Your task to perform on an android device: Go to settings Image 0: 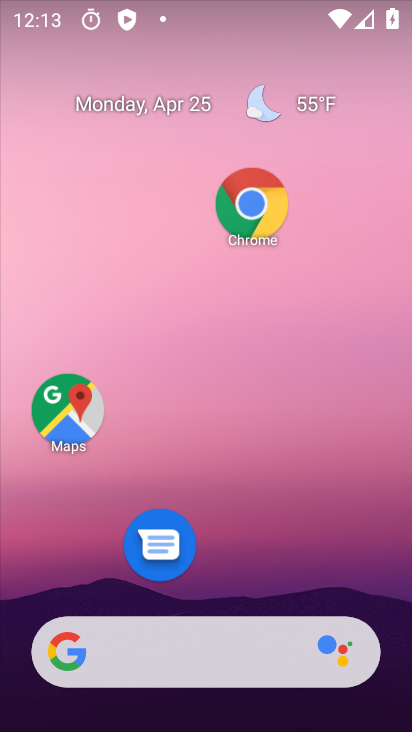
Step 0: drag from (335, 635) to (409, 184)
Your task to perform on an android device: Go to settings Image 1: 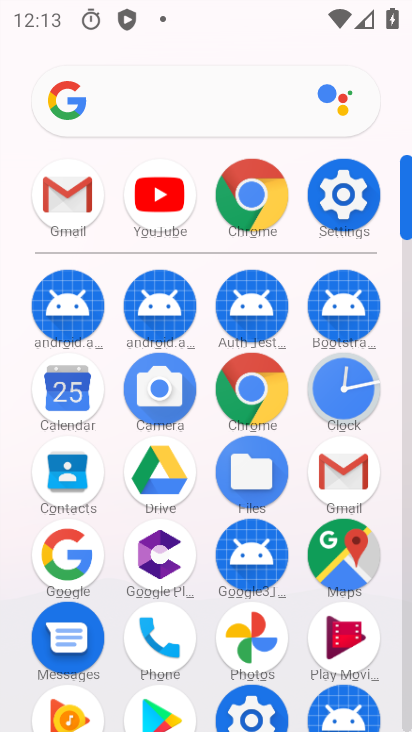
Step 1: click (325, 208)
Your task to perform on an android device: Go to settings Image 2: 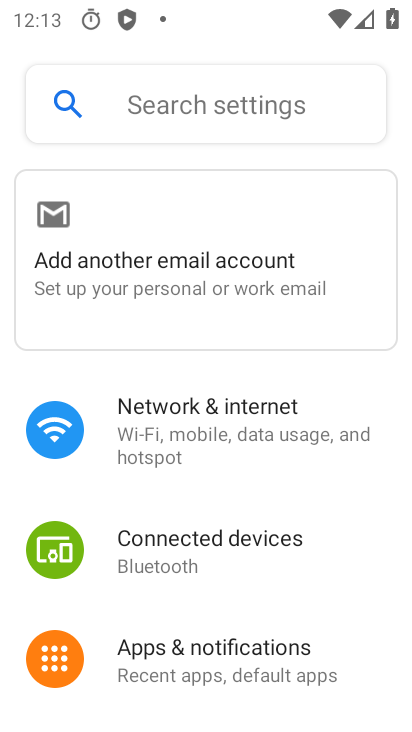
Step 2: task complete